Your task to perform on an android device: Open Android settings Image 0: 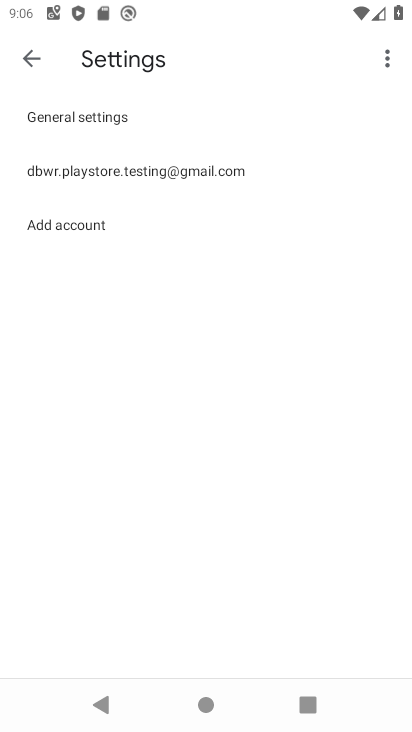
Step 0: press home button
Your task to perform on an android device: Open Android settings Image 1: 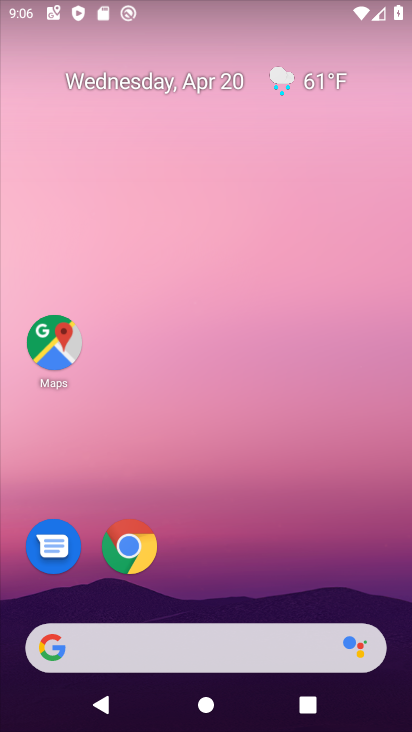
Step 1: drag from (226, 664) to (243, 85)
Your task to perform on an android device: Open Android settings Image 2: 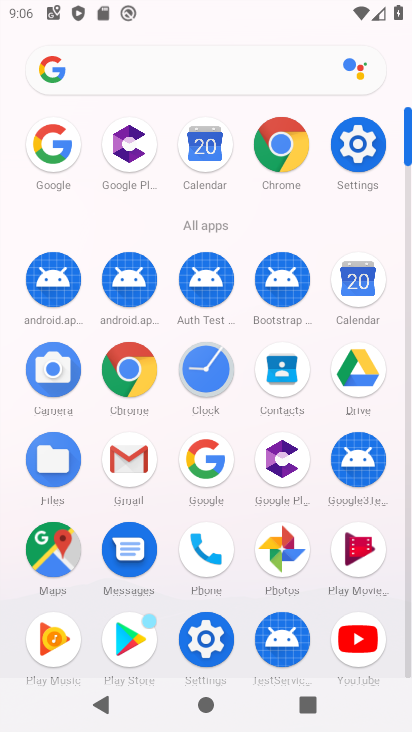
Step 2: click (358, 148)
Your task to perform on an android device: Open Android settings Image 3: 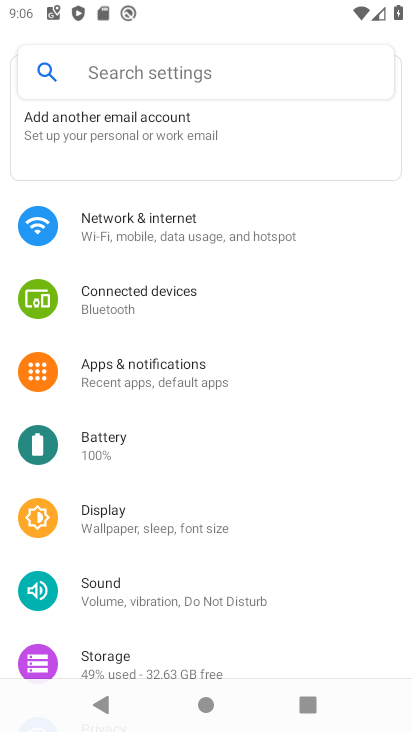
Step 3: drag from (151, 637) to (164, 171)
Your task to perform on an android device: Open Android settings Image 4: 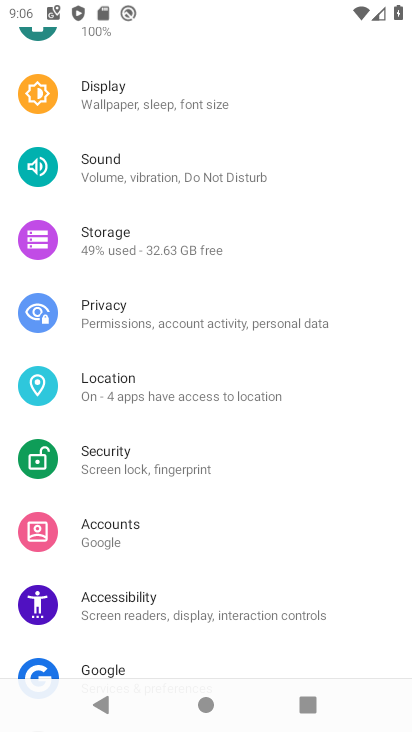
Step 4: drag from (179, 645) to (197, 156)
Your task to perform on an android device: Open Android settings Image 5: 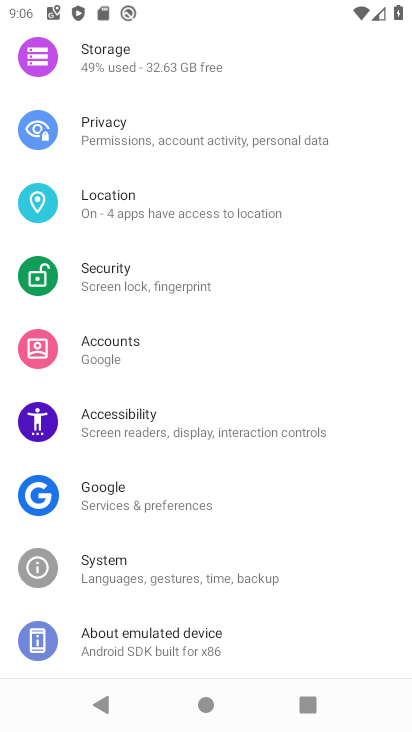
Step 5: drag from (163, 615) to (159, 217)
Your task to perform on an android device: Open Android settings Image 6: 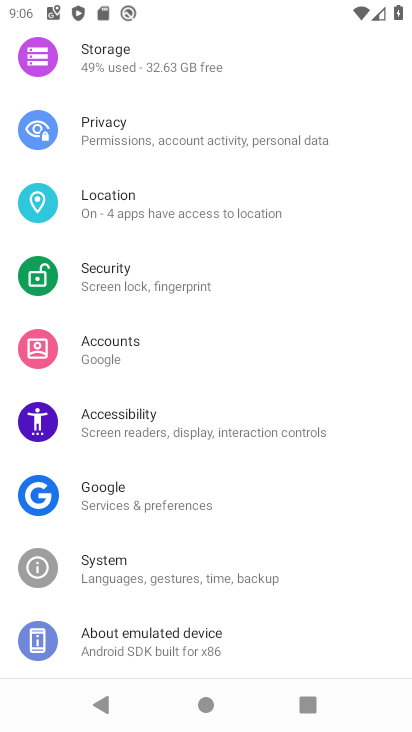
Step 6: click (161, 642)
Your task to perform on an android device: Open Android settings Image 7: 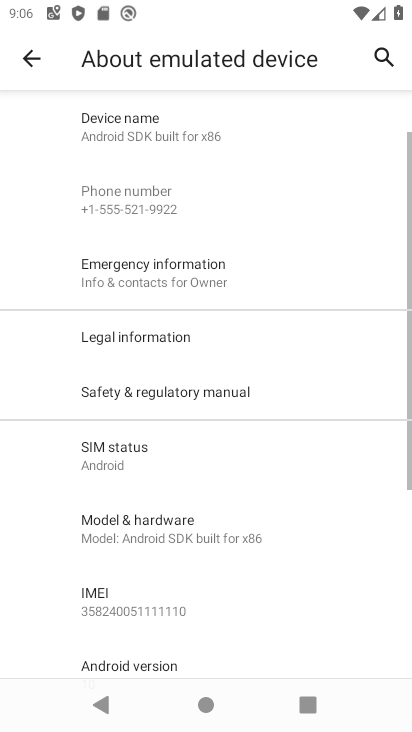
Step 7: click (260, 175)
Your task to perform on an android device: Open Android settings Image 8: 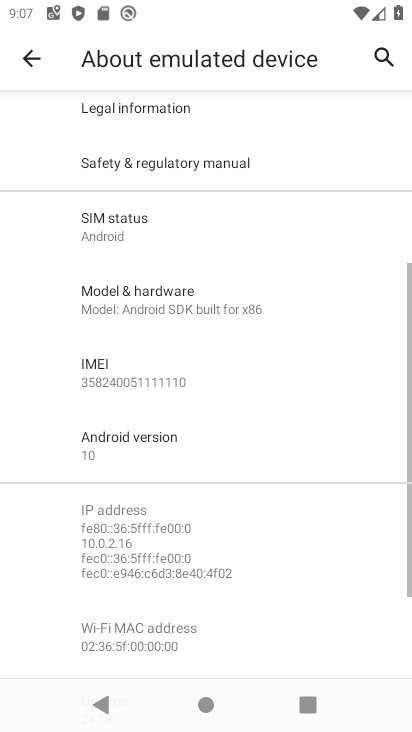
Step 8: task complete